Your task to perform on an android device: turn on javascript in the chrome app Image 0: 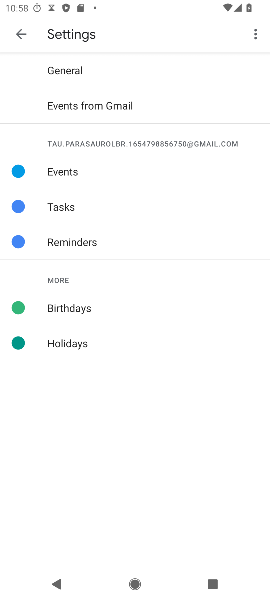
Step 0: press home button
Your task to perform on an android device: turn on javascript in the chrome app Image 1: 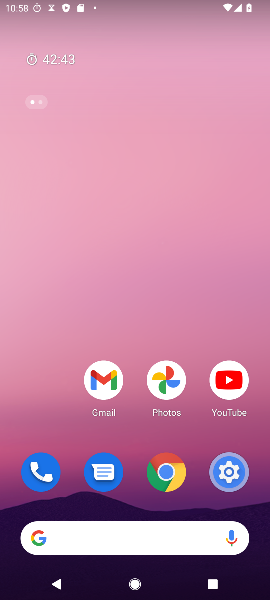
Step 1: click (172, 473)
Your task to perform on an android device: turn on javascript in the chrome app Image 2: 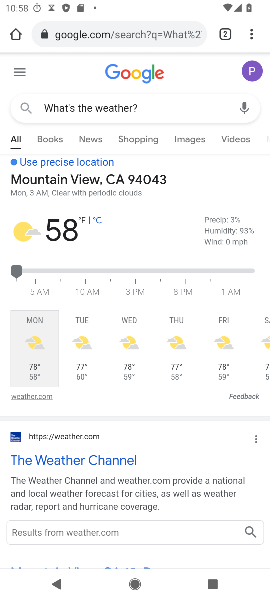
Step 2: click (252, 30)
Your task to perform on an android device: turn on javascript in the chrome app Image 3: 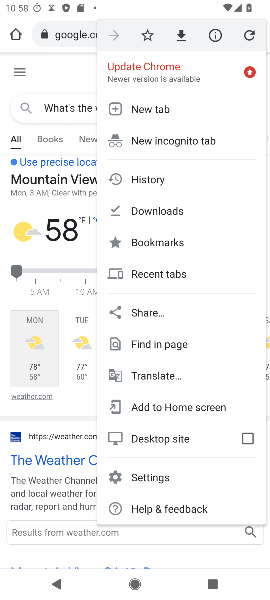
Step 3: click (164, 484)
Your task to perform on an android device: turn on javascript in the chrome app Image 4: 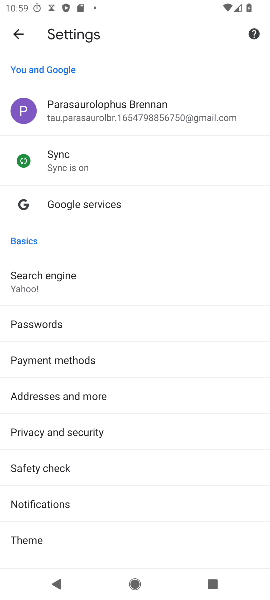
Step 4: drag from (151, 520) to (132, 62)
Your task to perform on an android device: turn on javascript in the chrome app Image 5: 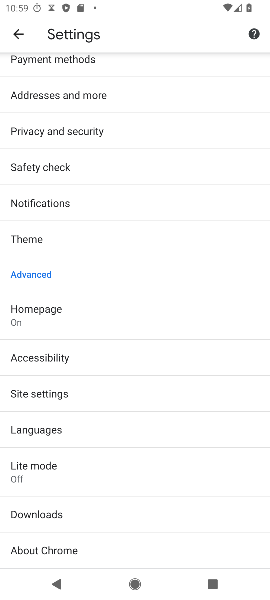
Step 5: click (69, 396)
Your task to perform on an android device: turn on javascript in the chrome app Image 6: 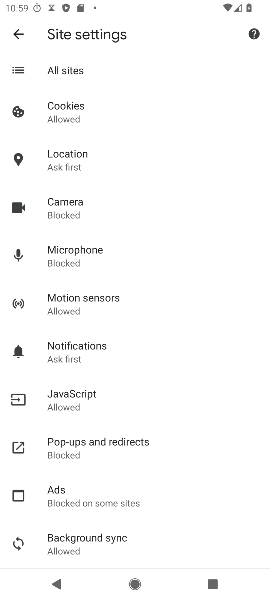
Step 6: click (146, 398)
Your task to perform on an android device: turn on javascript in the chrome app Image 7: 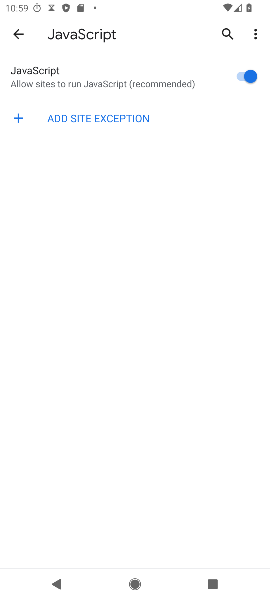
Step 7: task complete